Your task to perform on an android device: turn off javascript in the chrome app Image 0: 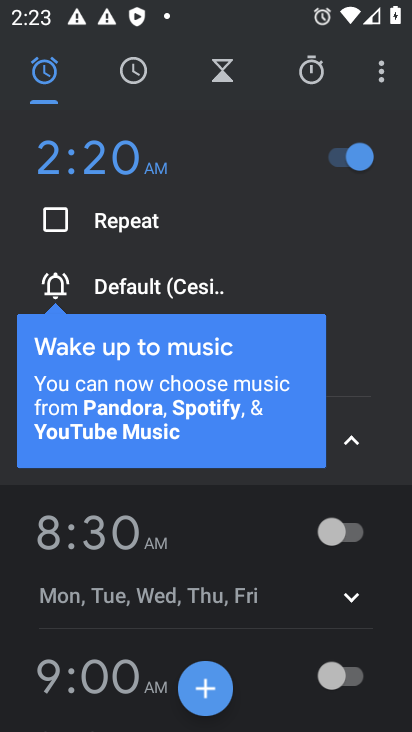
Step 0: press home button
Your task to perform on an android device: turn off javascript in the chrome app Image 1: 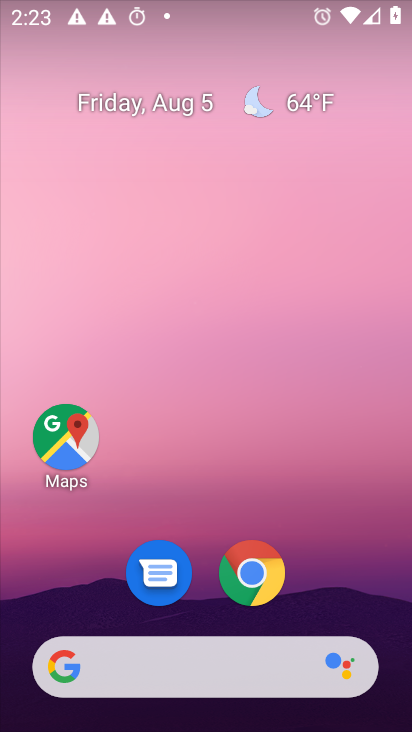
Step 1: drag from (342, 575) to (363, 257)
Your task to perform on an android device: turn off javascript in the chrome app Image 2: 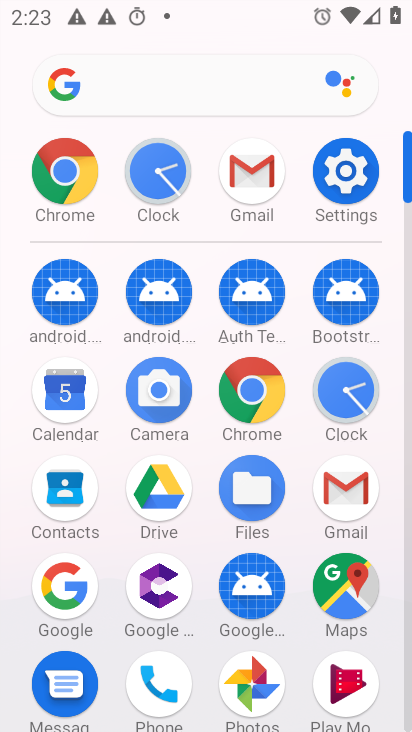
Step 2: click (256, 394)
Your task to perform on an android device: turn off javascript in the chrome app Image 3: 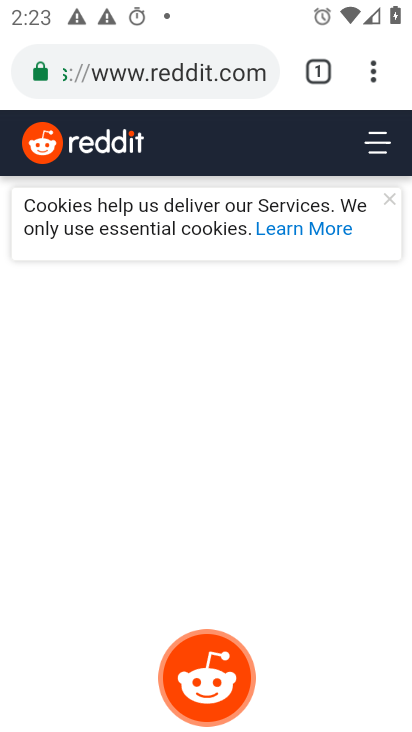
Step 3: click (374, 76)
Your task to perform on an android device: turn off javascript in the chrome app Image 4: 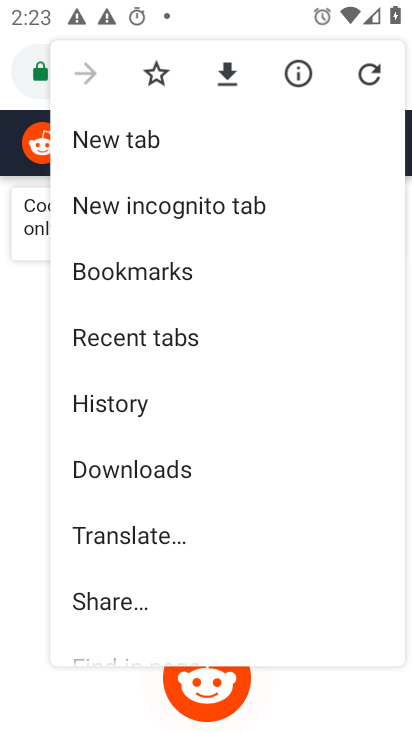
Step 4: drag from (250, 494) to (257, 404)
Your task to perform on an android device: turn off javascript in the chrome app Image 5: 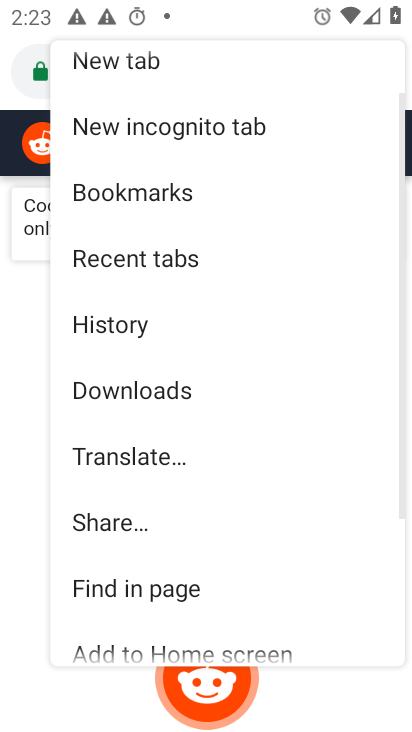
Step 5: drag from (252, 476) to (263, 407)
Your task to perform on an android device: turn off javascript in the chrome app Image 6: 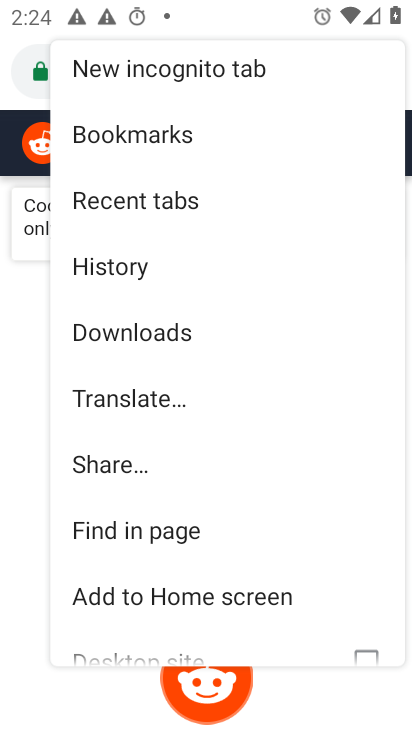
Step 6: drag from (256, 527) to (261, 422)
Your task to perform on an android device: turn off javascript in the chrome app Image 7: 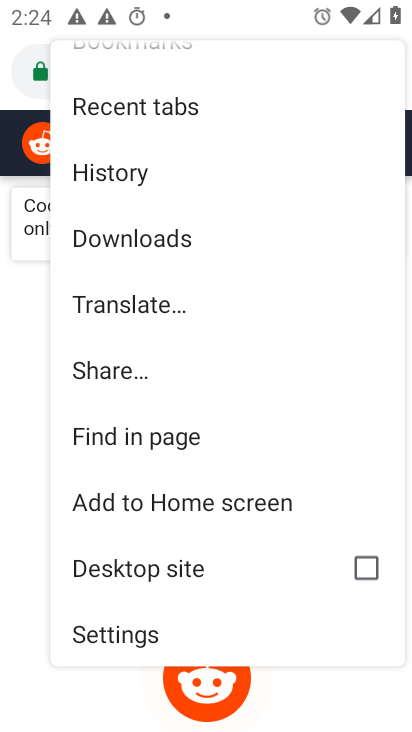
Step 7: drag from (262, 601) to (282, 460)
Your task to perform on an android device: turn off javascript in the chrome app Image 8: 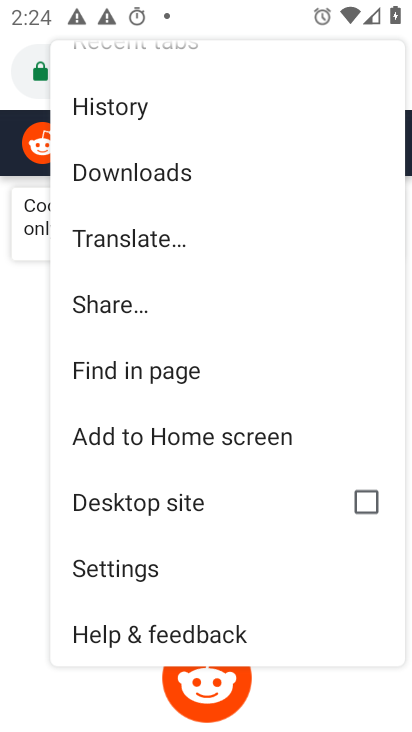
Step 8: click (181, 573)
Your task to perform on an android device: turn off javascript in the chrome app Image 9: 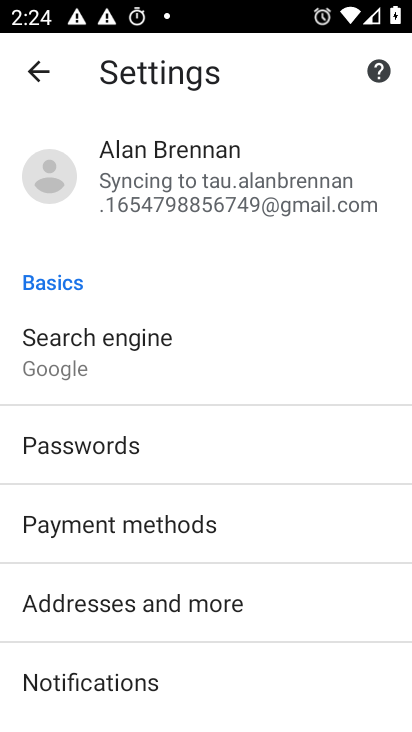
Step 9: drag from (328, 559) to (334, 459)
Your task to perform on an android device: turn off javascript in the chrome app Image 10: 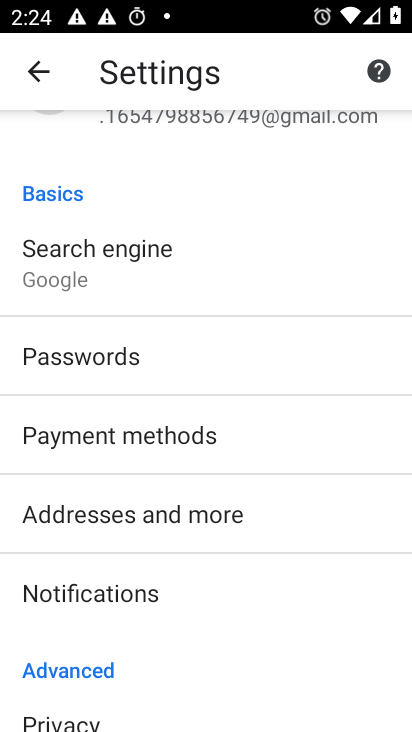
Step 10: drag from (307, 608) to (312, 523)
Your task to perform on an android device: turn off javascript in the chrome app Image 11: 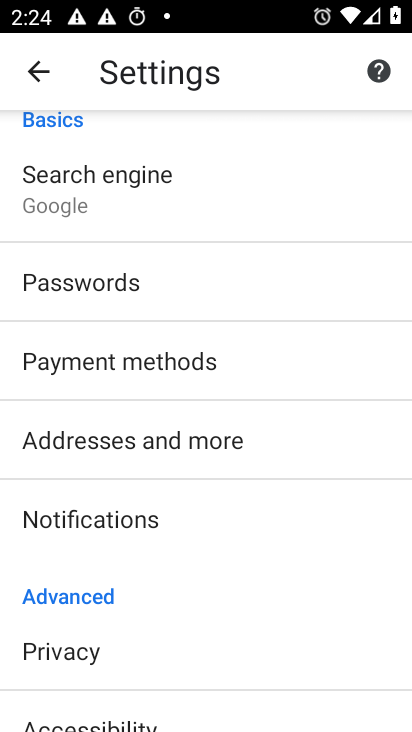
Step 11: drag from (304, 635) to (318, 525)
Your task to perform on an android device: turn off javascript in the chrome app Image 12: 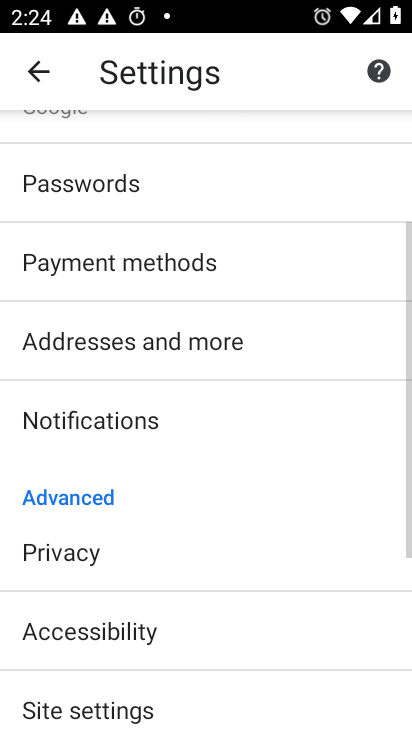
Step 12: drag from (308, 658) to (314, 534)
Your task to perform on an android device: turn off javascript in the chrome app Image 13: 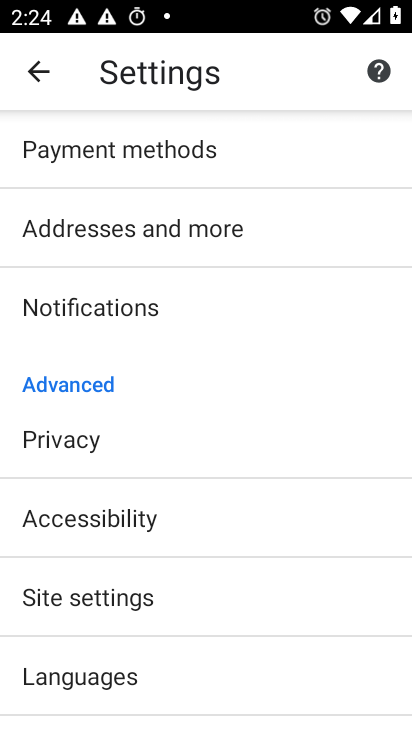
Step 13: drag from (288, 635) to (289, 526)
Your task to perform on an android device: turn off javascript in the chrome app Image 14: 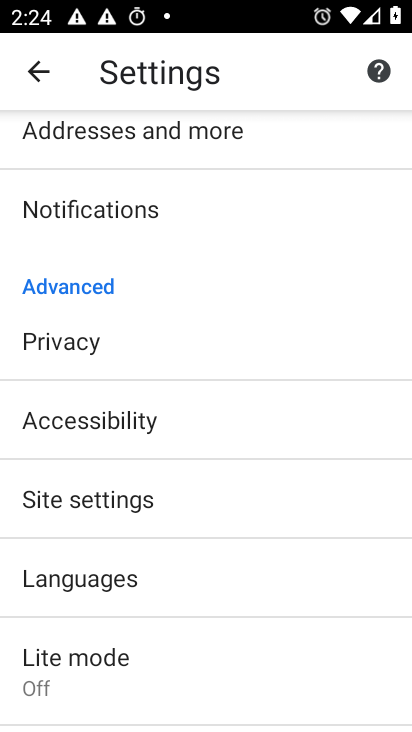
Step 14: click (270, 512)
Your task to perform on an android device: turn off javascript in the chrome app Image 15: 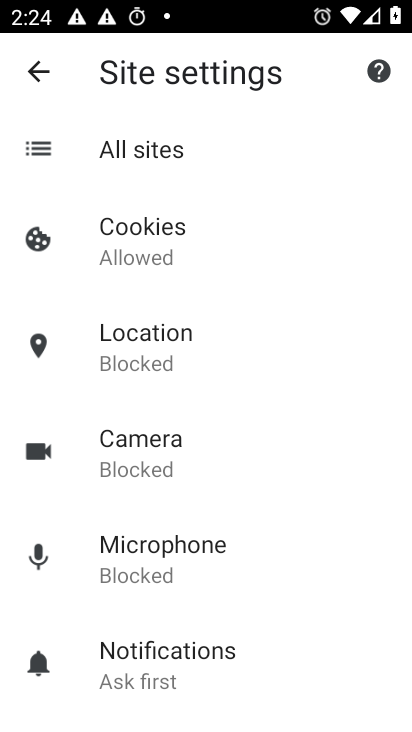
Step 15: drag from (326, 569) to (327, 444)
Your task to perform on an android device: turn off javascript in the chrome app Image 16: 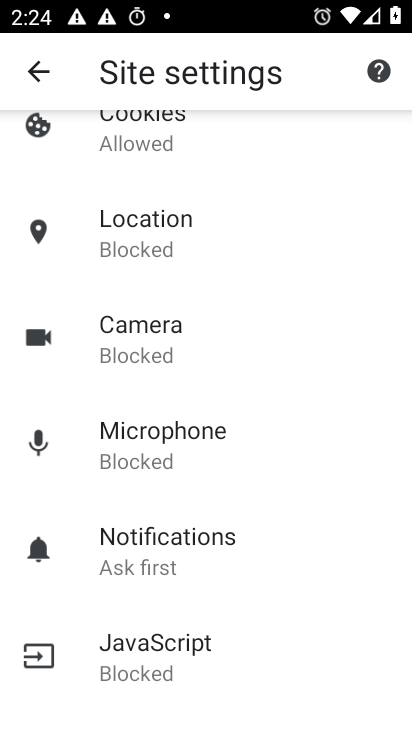
Step 16: drag from (316, 550) to (322, 444)
Your task to perform on an android device: turn off javascript in the chrome app Image 17: 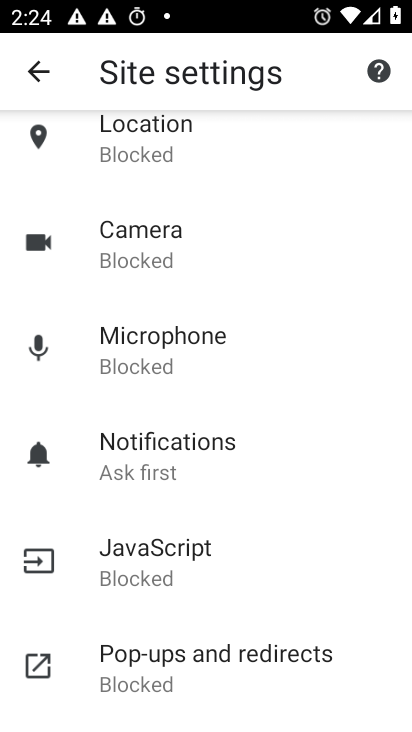
Step 17: drag from (323, 612) to (331, 448)
Your task to perform on an android device: turn off javascript in the chrome app Image 18: 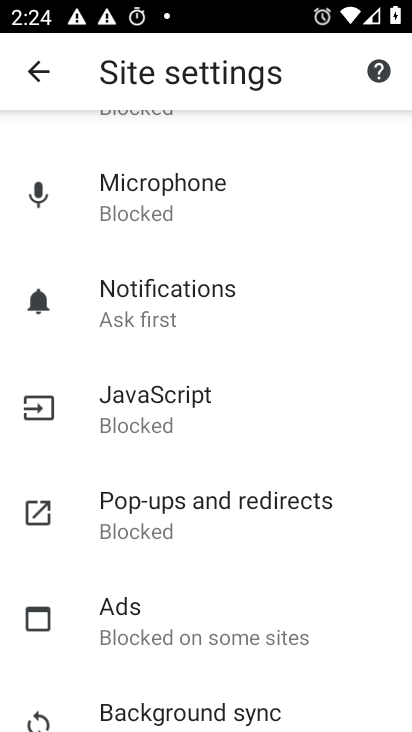
Step 18: click (228, 404)
Your task to perform on an android device: turn off javascript in the chrome app Image 19: 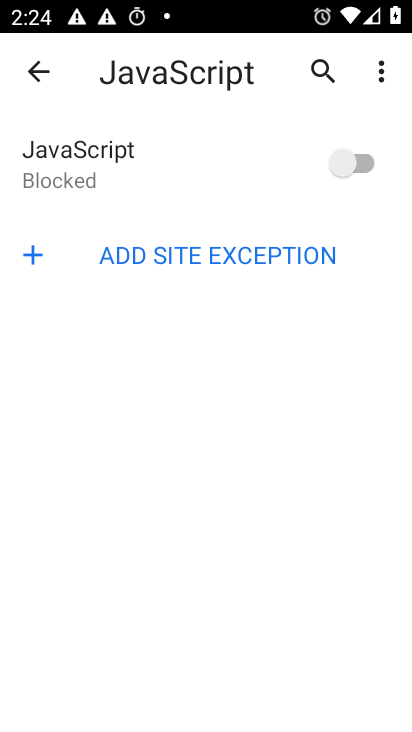
Step 19: task complete